Your task to perform on an android device: open chrome and create a bookmark for the current page Image 0: 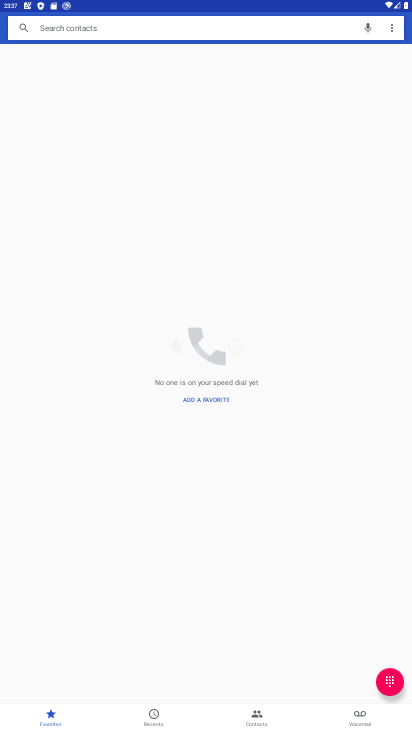
Step 0: press home button
Your task to perform on an android device: open chrome and create a bookmark for the current page Image 1: 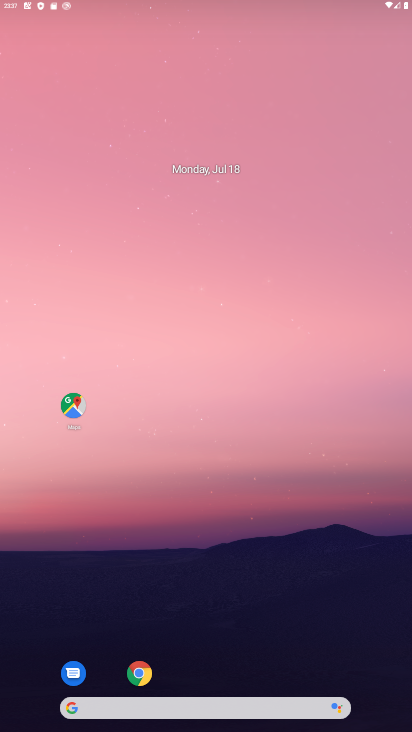
Step 1: drag from (209, 684) to (204, 313)
Your task to perform on an android device: open chrome and create a bookmark for the current page Image 2: 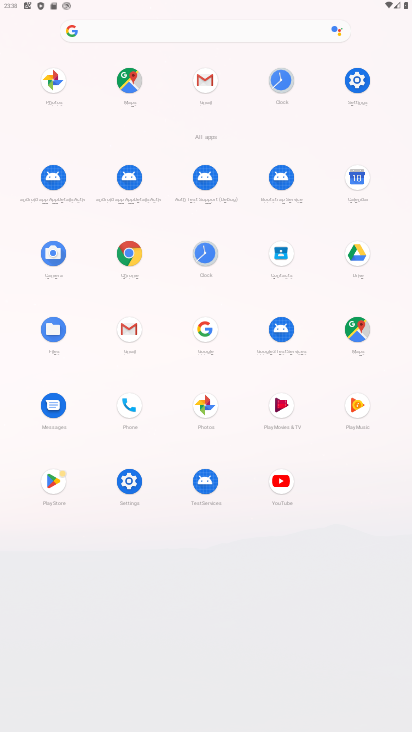
Step 2: click (134, 244)
Your task to perform on an android device: open chrome and create a bookmark for the current page Image 3: 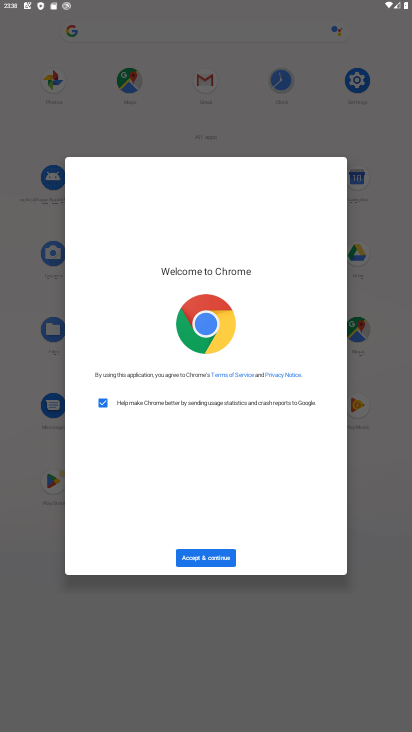
Step 3: click (220, 556)
Your task to perform on an android device: open chrome and create a bookmark for the current page Image 4: 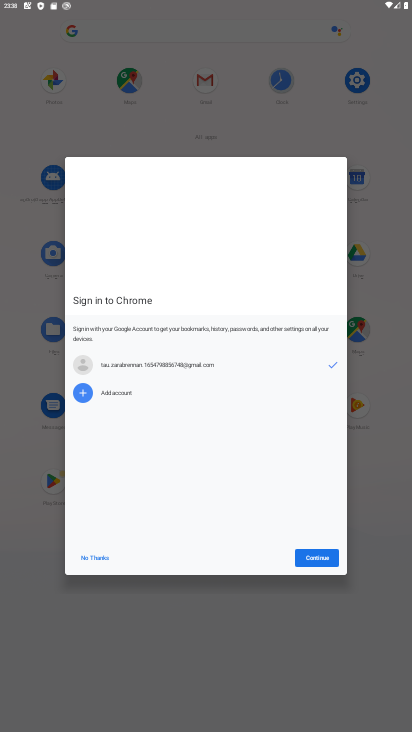
Step 4: click (301, 558)
Your task to perform on an android device: open chrome and create a bookmark for the current page Image 5: 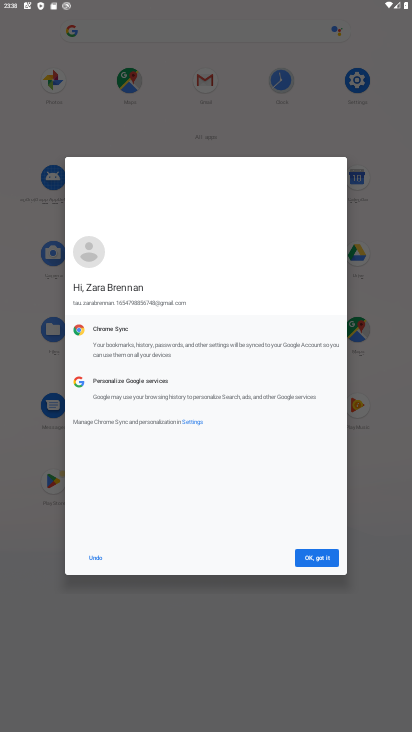
Step 5: click (299, 554)
Your task to perform on an android device: open chrome and create a bookmark for the current page Image 6: 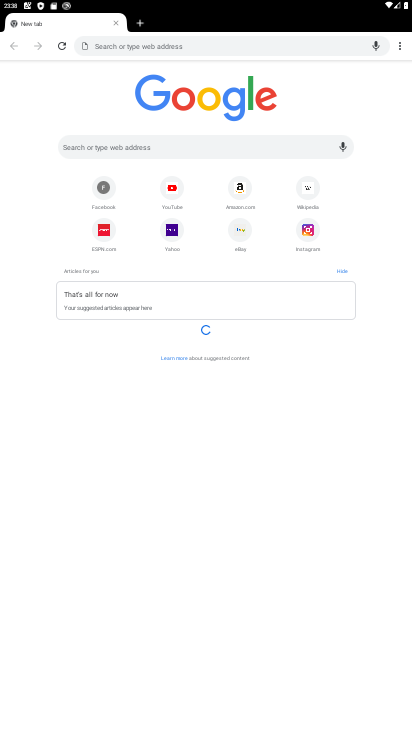
Step 6: click (402, 48)
Your task to perform on an android device: open chrome and create a bookmark for the current page Image 7: 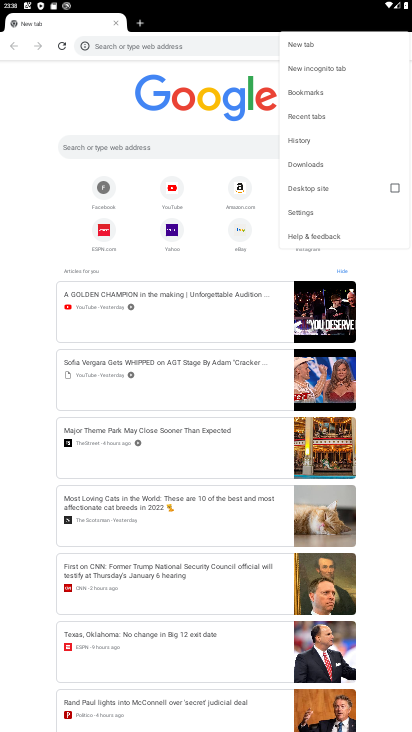
Step 7: click (268, 70)
Your task to perform on an android device: open chrome and create a bookmark for the current page Image 8: 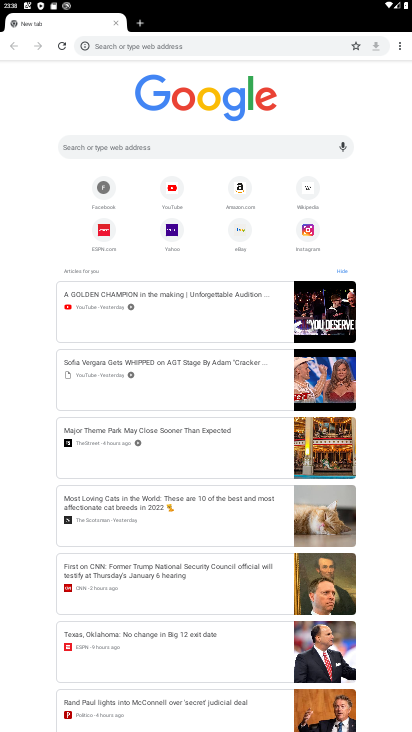
Step 8: click (353, 41)
Your task to perform on an android device: open chrome and create a bookmark for the current page Image 9: 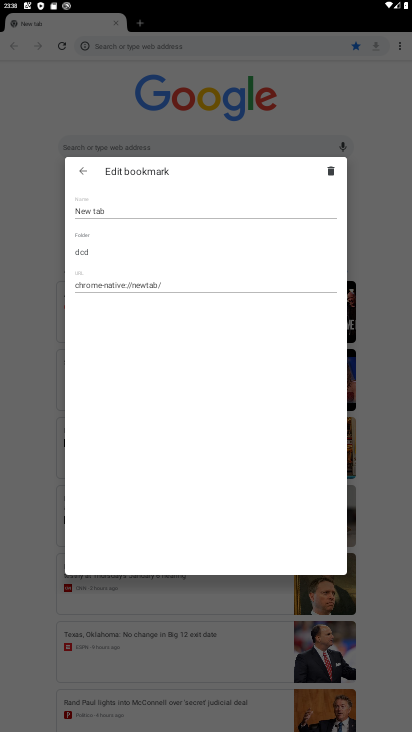
Step 9: task complete